Your task to perform on an android device: Show me popular games on the Play Store Image 0: 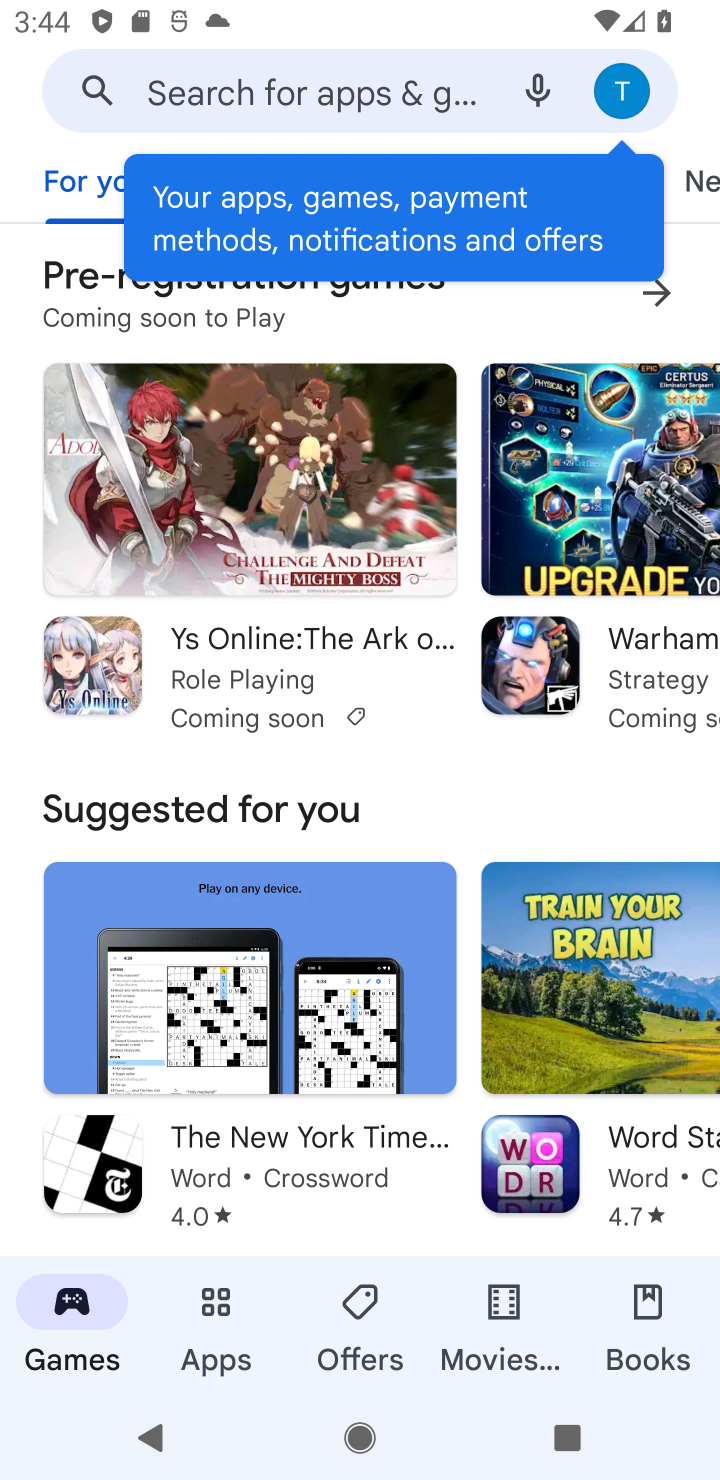
Step 0: click (615, 96)
Your task to perform on an android device: Show me popular games on the Play Store Image 1: 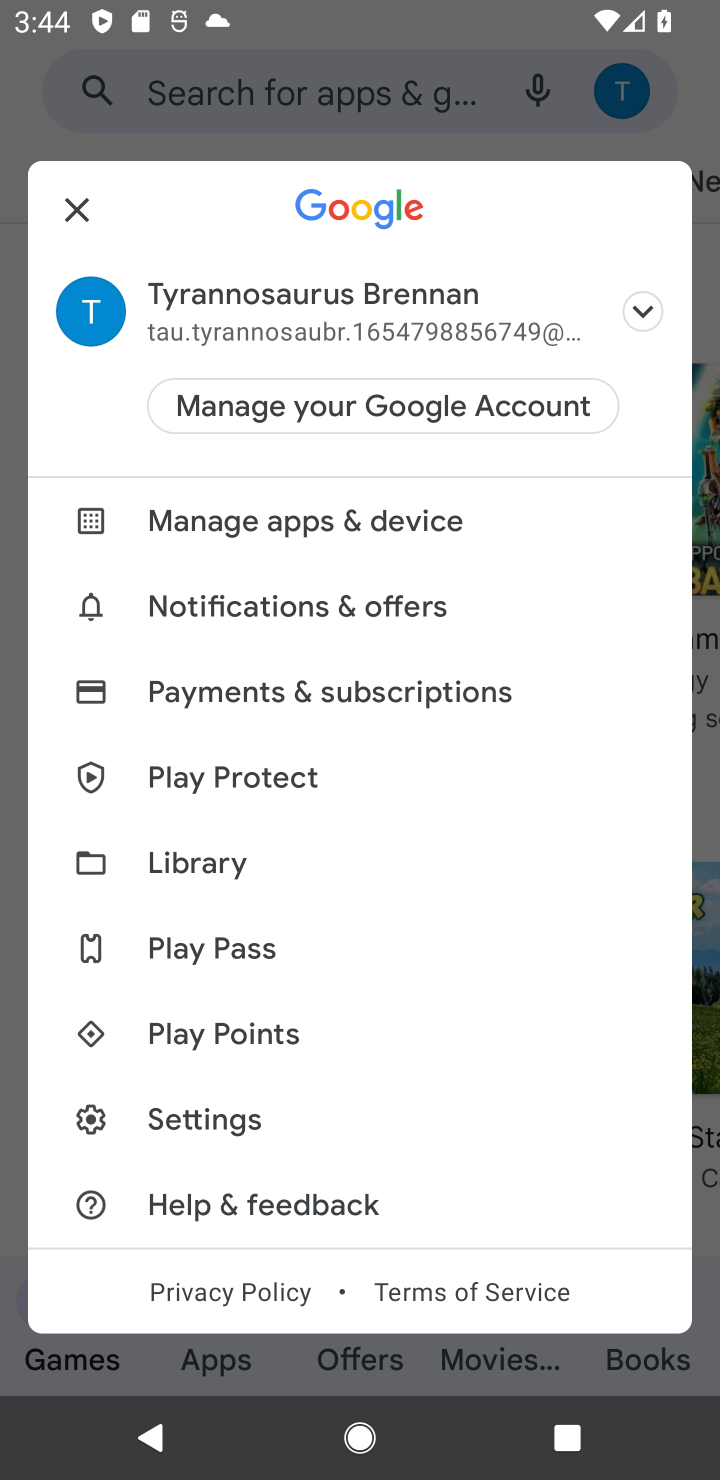
Step 1: click (88, 192)
Your task to perform on an android device: Show me popular games on the Play Store Image 2: 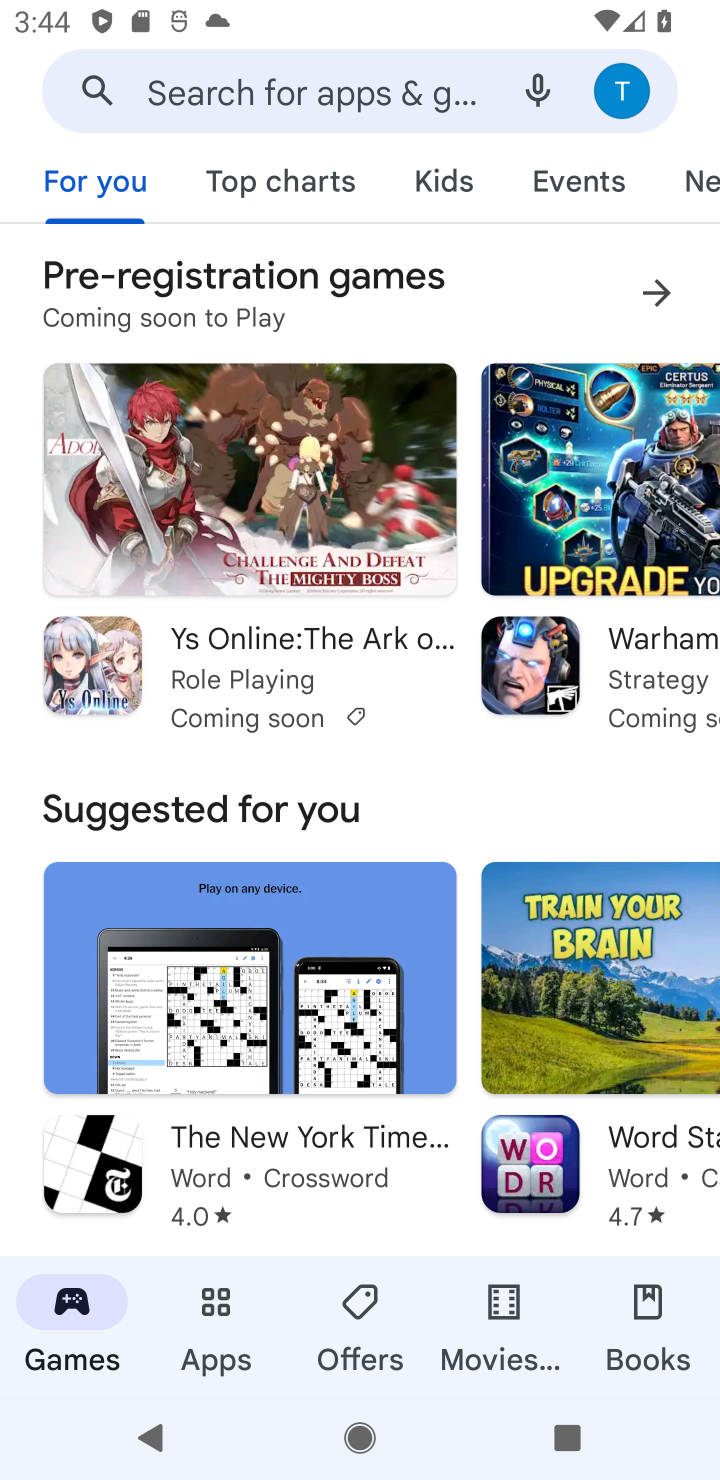
Step 2: click (309, 203)
Your task to perform on an android device: Show me popular games on the Play Store Image 3: 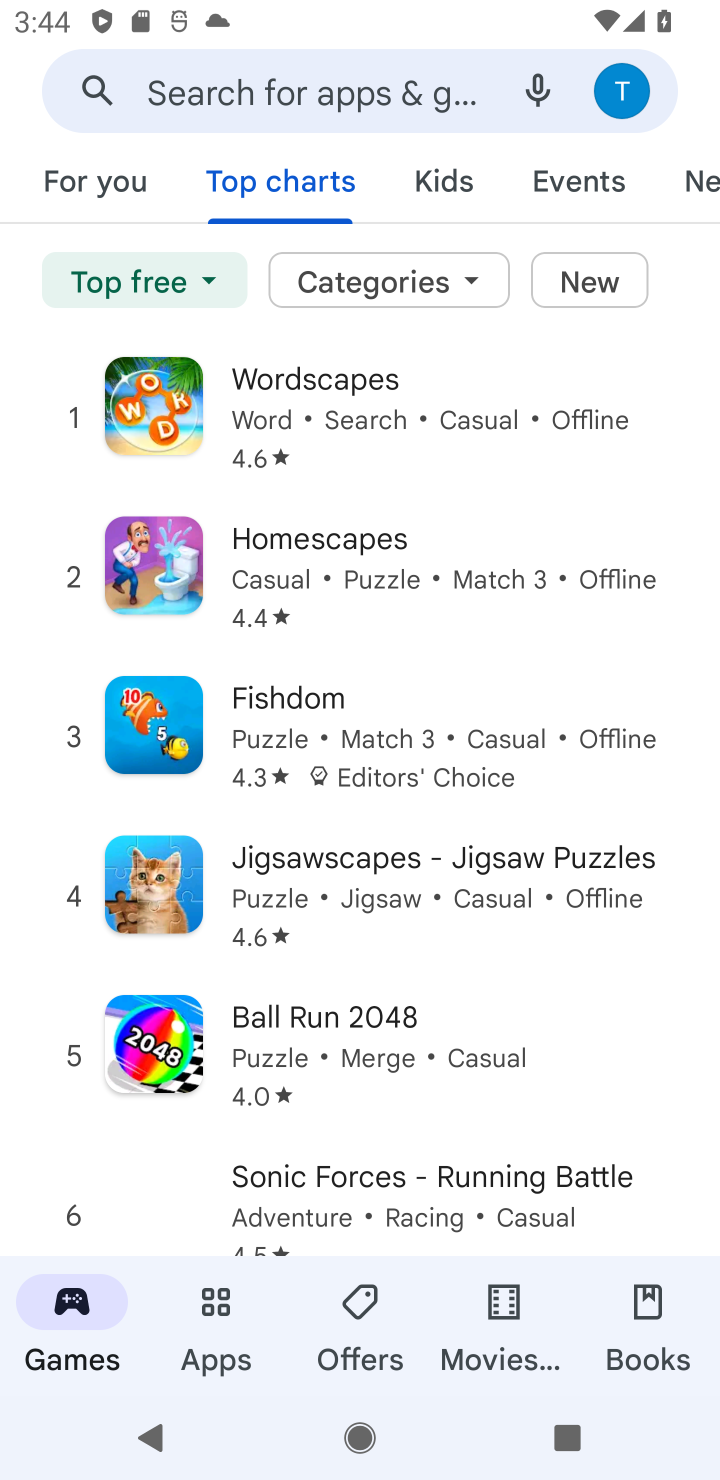
Step 3: click (472, 285)
Your task to perform on an android device: Show me popular games on the Play Store Image 4: 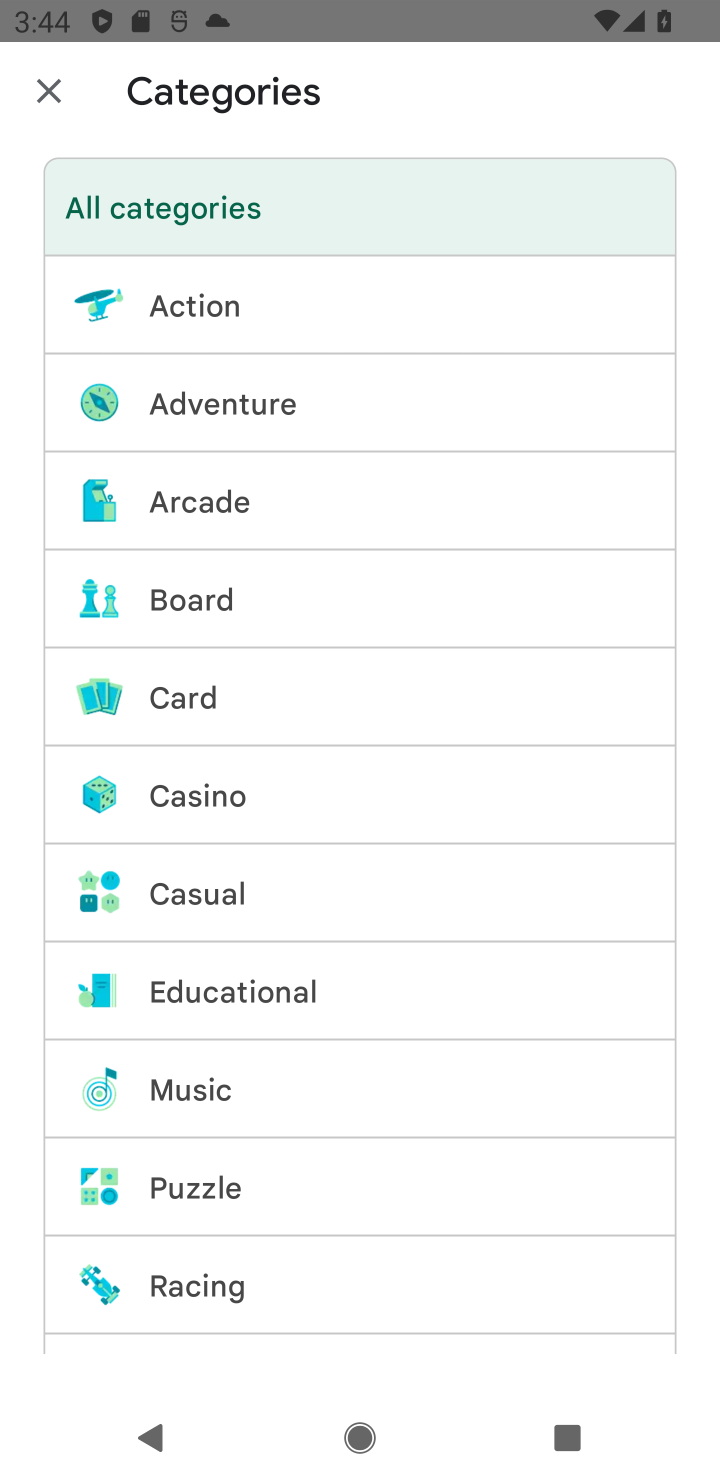
Step 4: drag from (420, 1078) to (462, 394)
Your task to perform on an android device: Show me popular games on the Play Store Image 5: 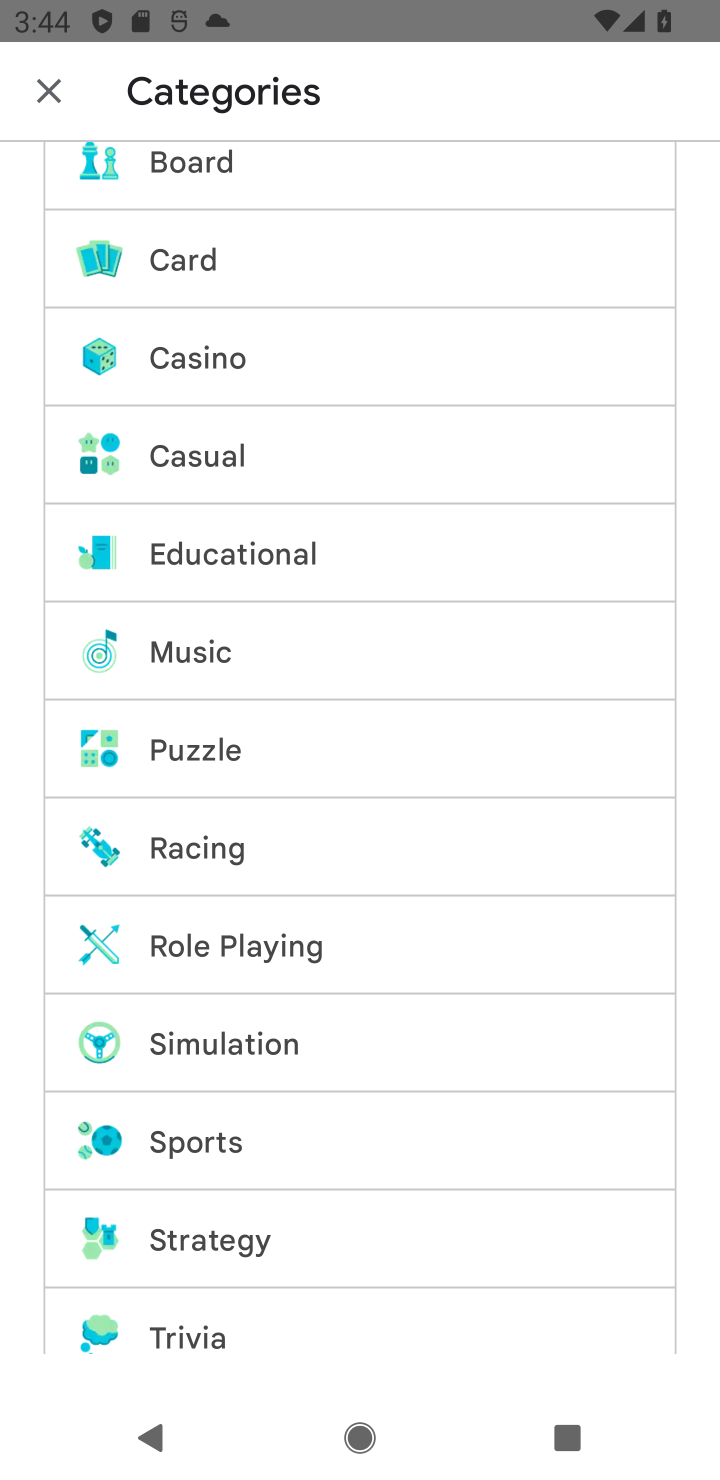
Step 5: click (53, 110)
Your task to perform on an android device: Show me popular games on the Play Store Image 6: 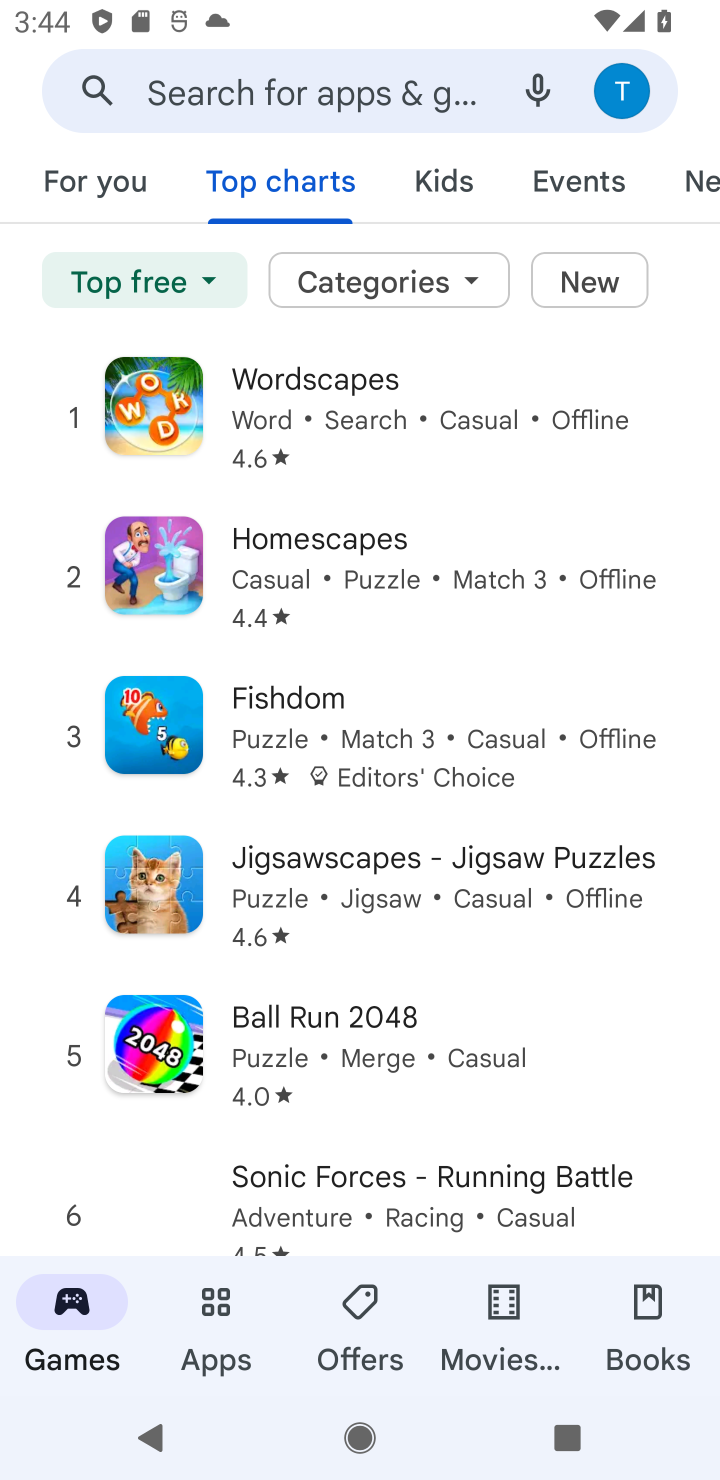
Step 6: task complete